Your task to perform on an android device: Go to network settings Image 0: 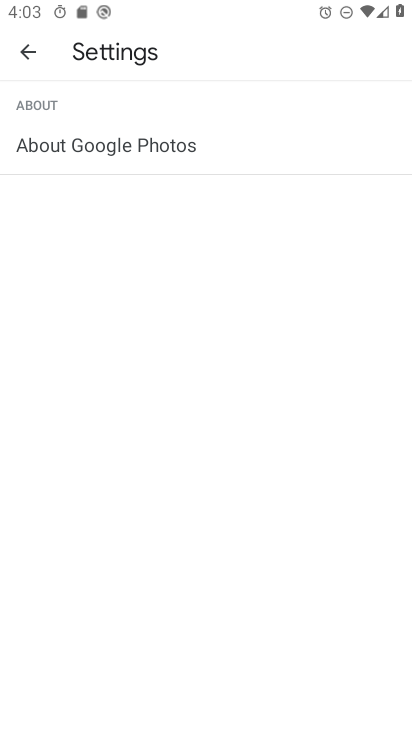
Step 0: press home button
Your task to perform on an android device: Go to network settings Image 1: 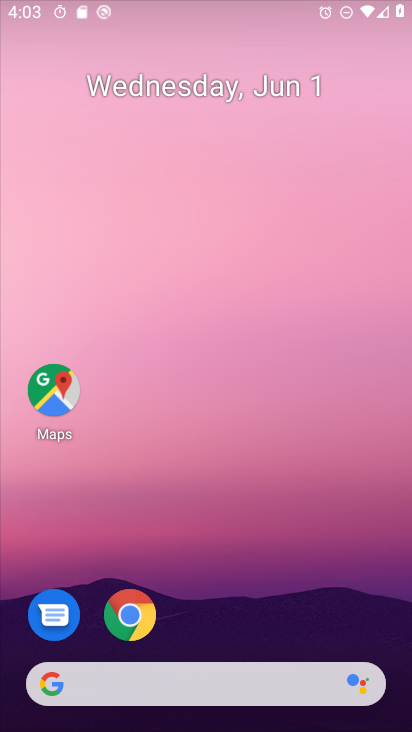
Step 1: drag from (254, 690) to (321, 2)
Your task to perform on an android device: Go to network settings Image 2: 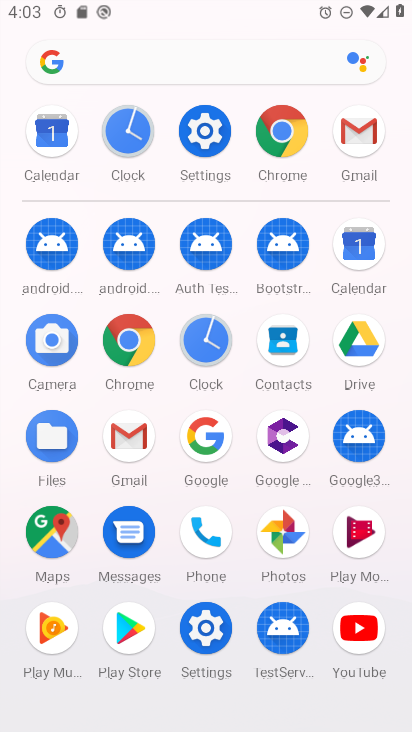
Step 2: click (220, 139)
Your task to perform on an android device: Go to network settings Image 3: 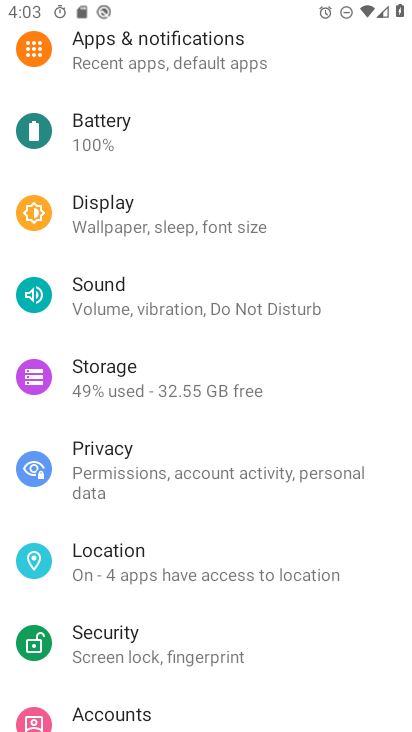
Step 3: drag from (177, 123) to (216, 699)
Your task to perform on an android device: Go to network settings Image 4: 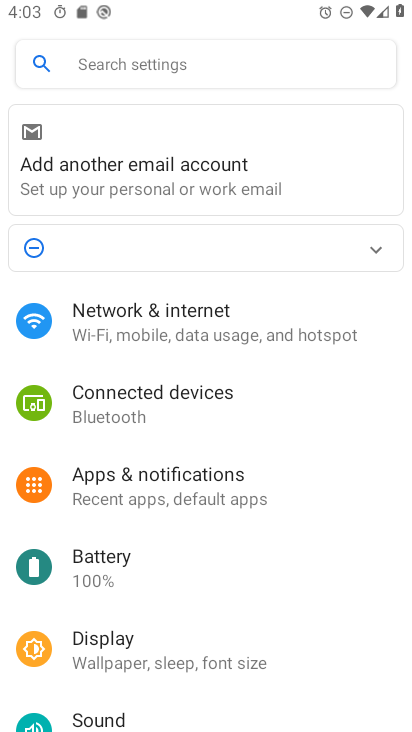
Step 4: click (173, 346)
Your task to perform on an android device: Go to network settings Image 5: 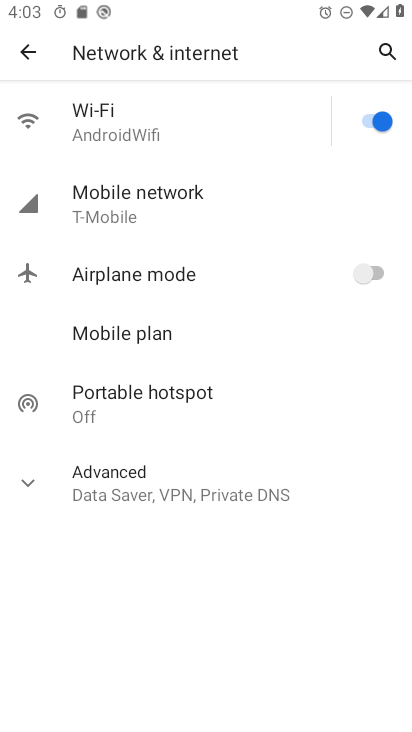
Step 5: click (190, 203)
Your task to perform on an android device: Go to network settings Image 6: 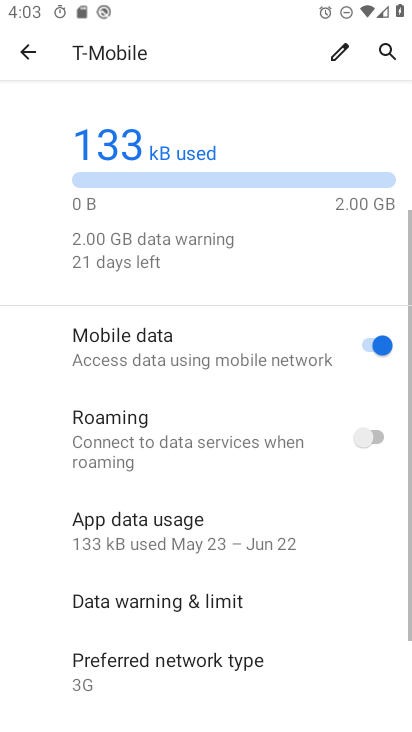
Step 6: task complete